Your task to perform on an android device: Go to location settings Image 0: 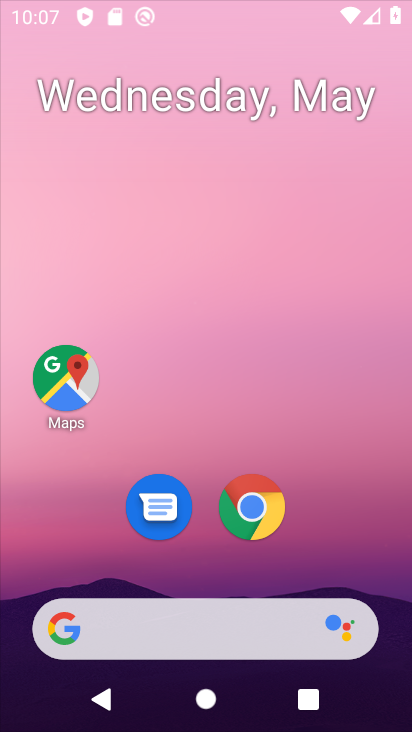
Step 0: press home button
Your task to perform on an android device: Go to location settings Image 1: 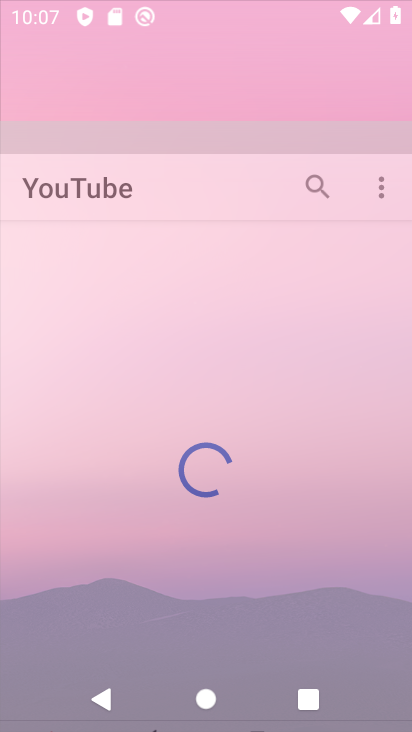
Step 1: drag from (200, 564) to (265, 103)
Your task to perform on an android device: Go to location settings Image 2: 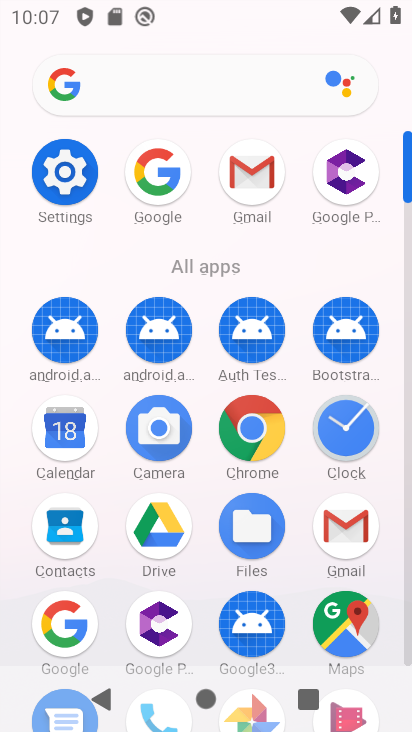
Step 2: press home button
Your task to perform on an android device: Go to location settings Image 3: 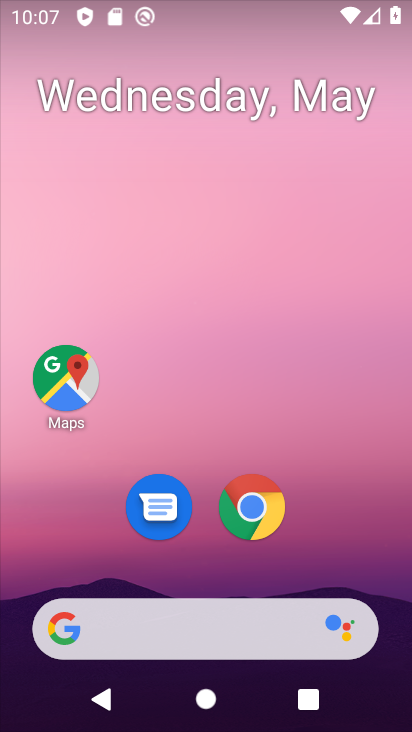
Step 3: drag from (207, 578) to (246, 83)
Your task to perform on an android device: Go to location settings Image 4: 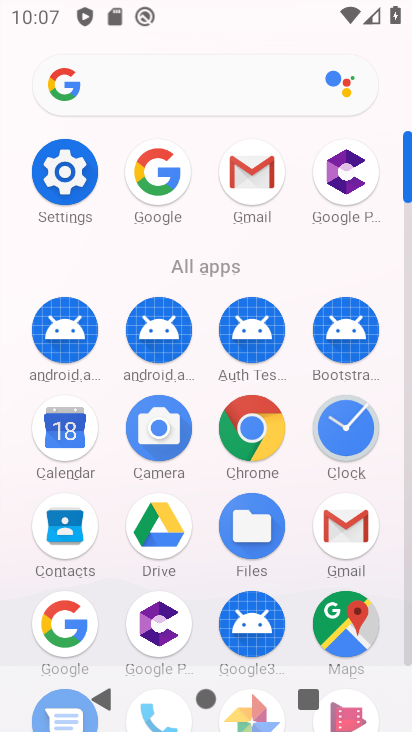
Step 4: click (56, 168)
Your task to perform on an android device: Go to location settings Image 5: 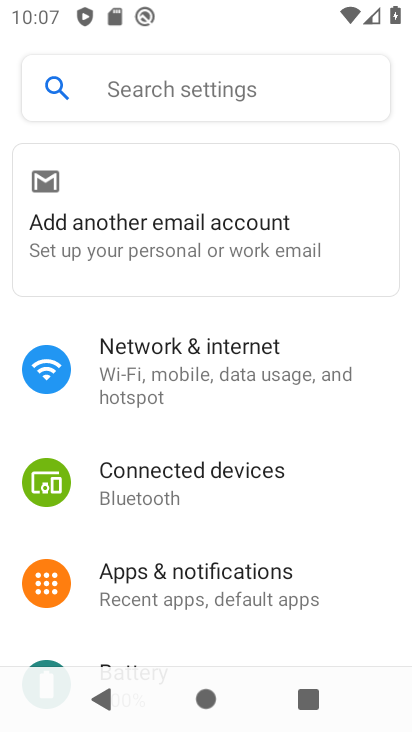
Step 5: drag from (209, 629) to (321, 99)
Your task to perform on an android device: Go to location settings Image 6: 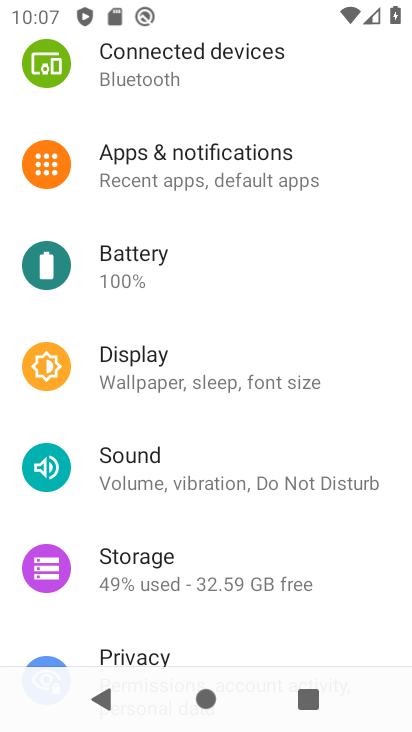
Step 6: drag from (202, 637) to (265, 108)
Your task to perform on an android device: Go to location settings Image 7: 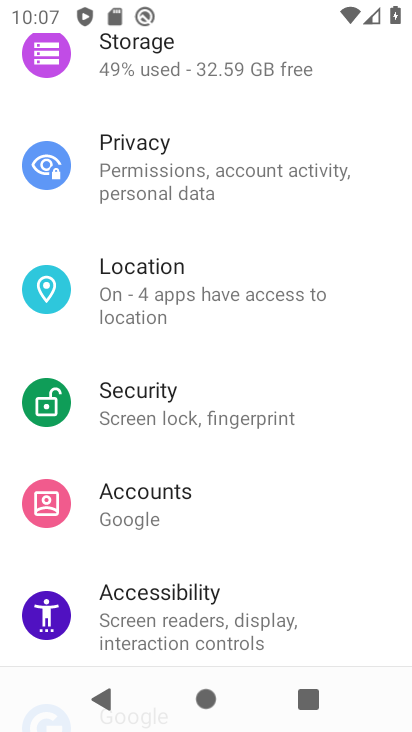
Step 7: click (209, 272)
Your task to perform on an android device: Go to location settings Image 8: 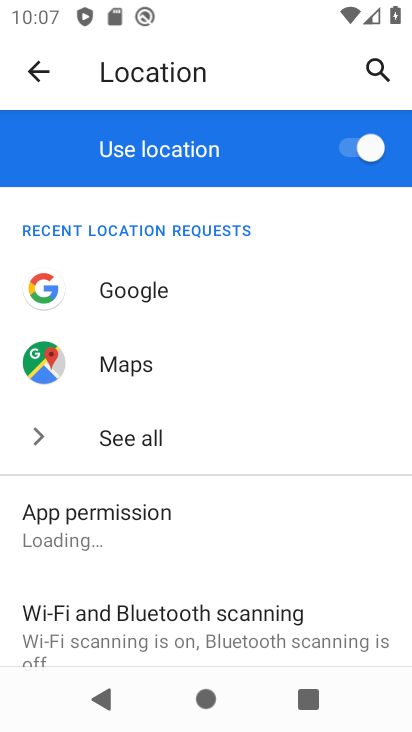
Step 8: drag from (215, 614) to (263, 169)
Your task to perform on an android device: Go to location settings Image 9: 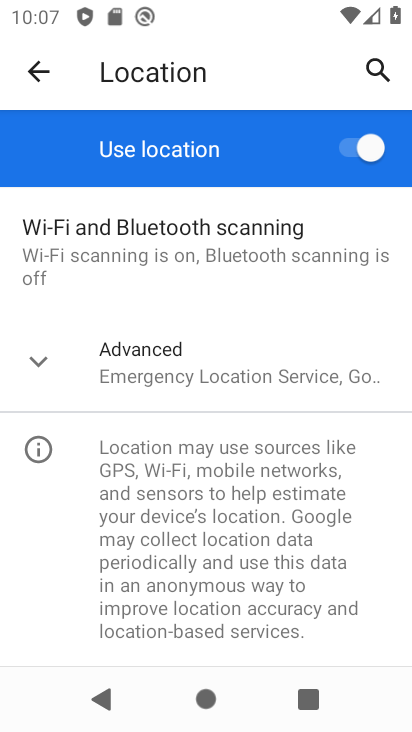
Step 9: click (46, 353)
Your task to perform on an android device: Go to location settings Image 10: 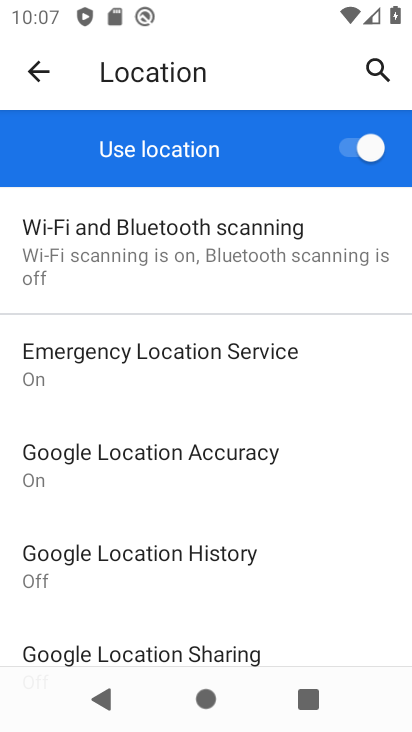
Step 10: task complete